Your task to perform on an android device: Open Youtube and go to "Your channel" Image 0: 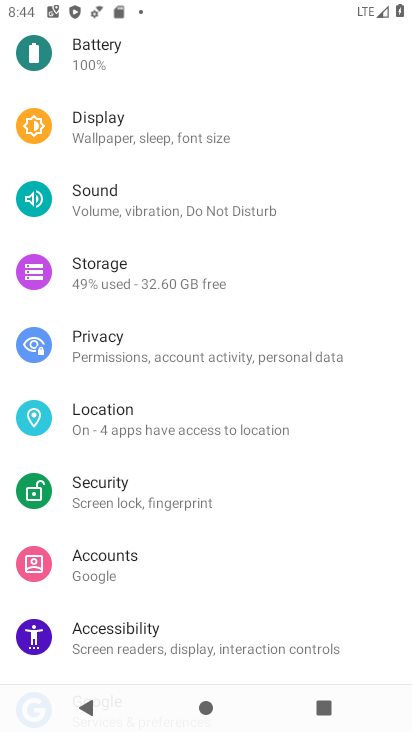
Step 0: press home button
Your task to perform on an android device: Open Youtube and go to "Your channel" Image 1: 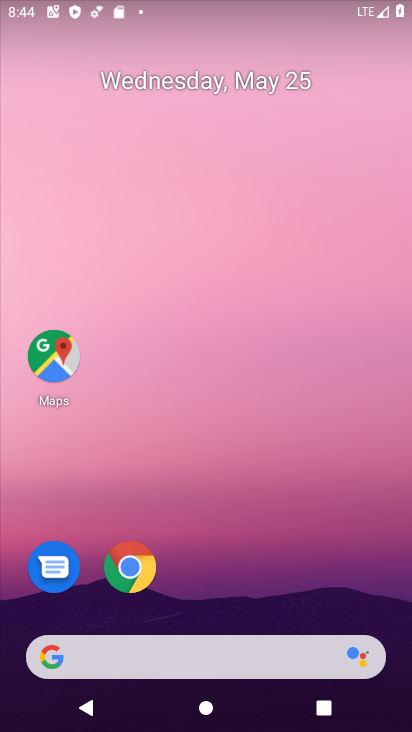
Step 1: drag from (244, 519) to (238, 8)
Your task to perform on an android device: Open Youtube and go to "Your channel" Image 2: 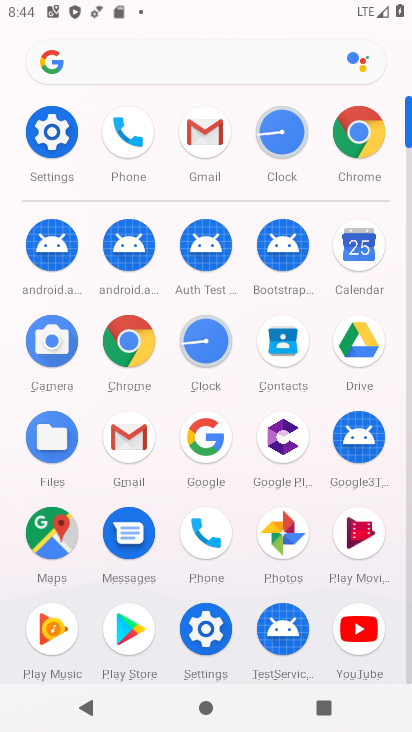
Step 2: click (357, 627)
Your task to perform on an android device: Open Youtube and go to "Your channel" Image 3: 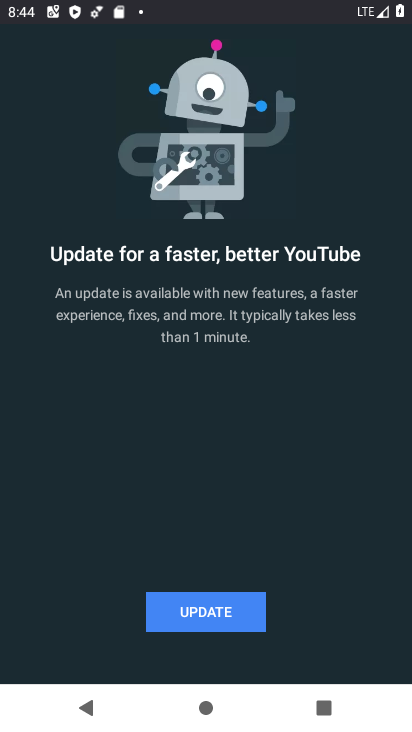
Step 3: click (212, 618)
Your task to perform on an android device: Open Youtube and go to "Your channel" Image 4: 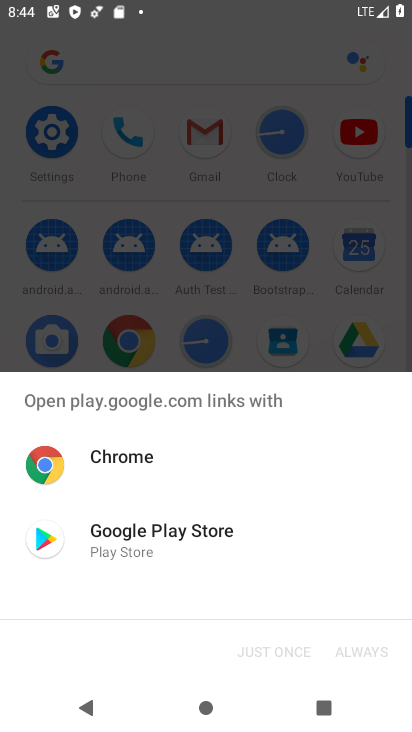
Step 4: click (150, 521)
Your task to perform on an android device: Open Youtube and go to "Your channel" Image 5: 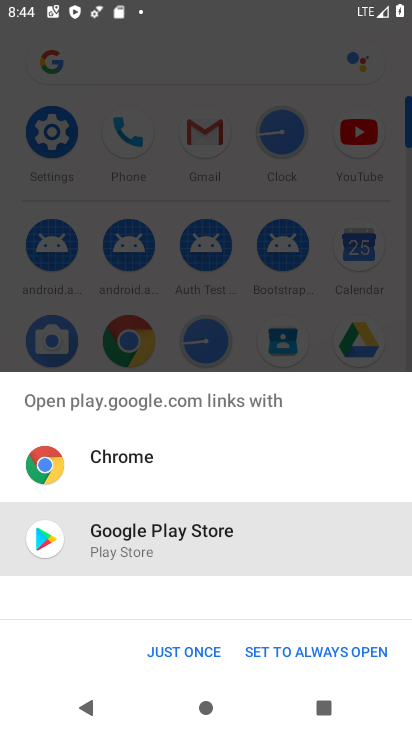
Step 5: click (171, 648)
Your task to perform on an android device: Open Youtube and go to "Your channel" Image 6: 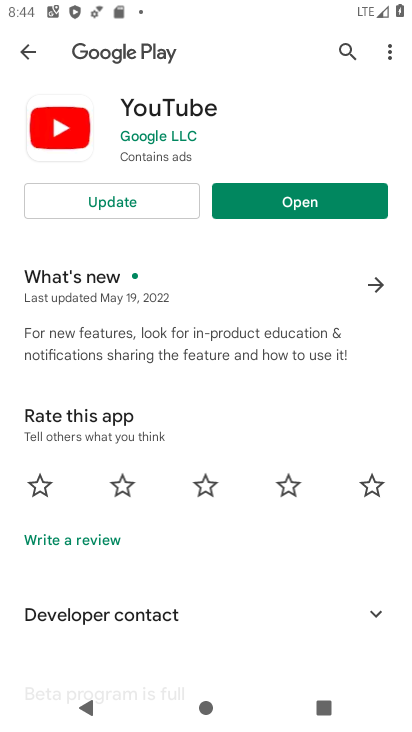
Step 6: click (162, 205)
Your task to perform on an android device: Open Youtube and go to "Your channel" Image 7: 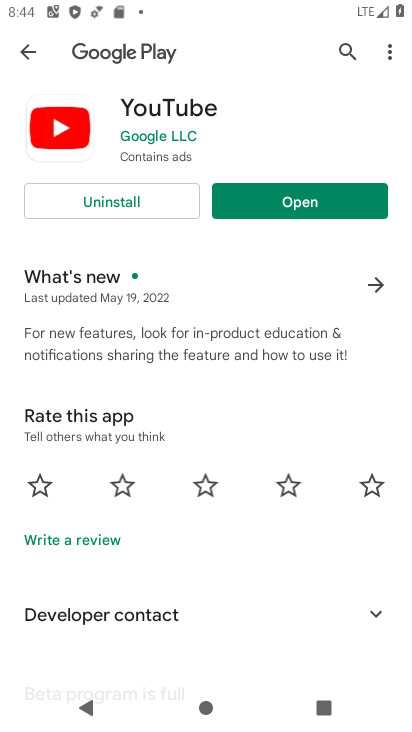
Step 7: click (296, 195)
Your task to perform on an android device: Open Youtube and go to "Your channel" Image 8: 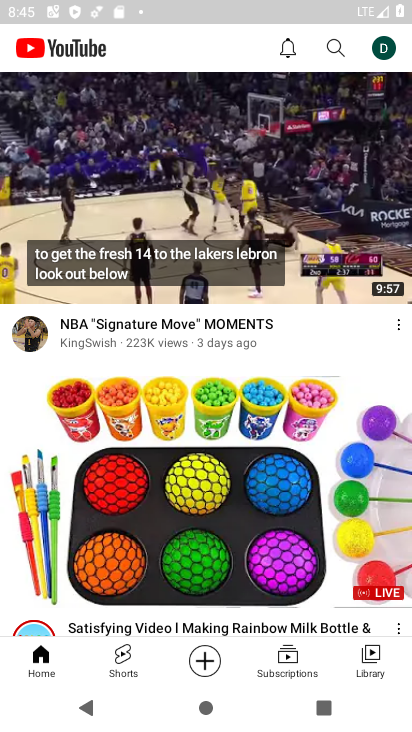
Step 8: click (387, 49)
Your task to perform on an android device: Open Youtube and go to "Your channel" Image 9: 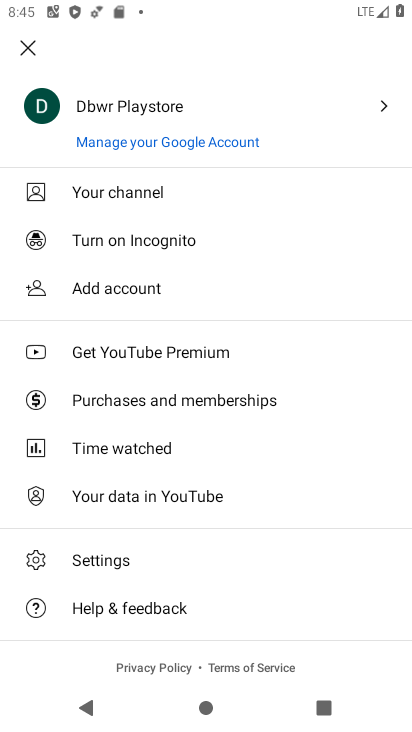
Step 9: click (195, 202)
Your task to perform on an android device: Open Youtube and go to "Your channel" Image 10: 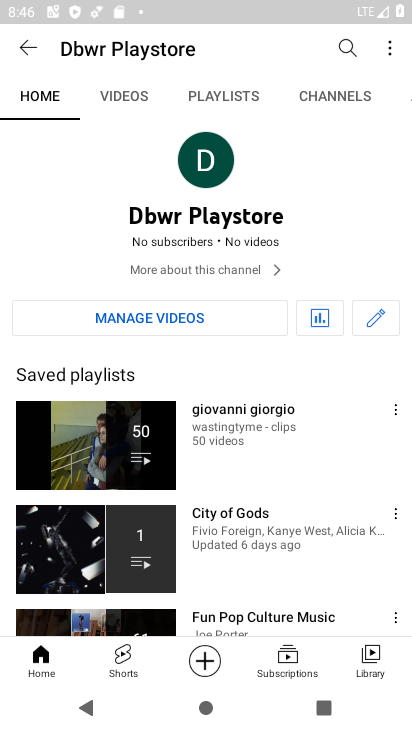
Step 10: task complete